Your task to perform on an android device: open app "Speedtest by Ookla" (install if not already installed) Image 0: 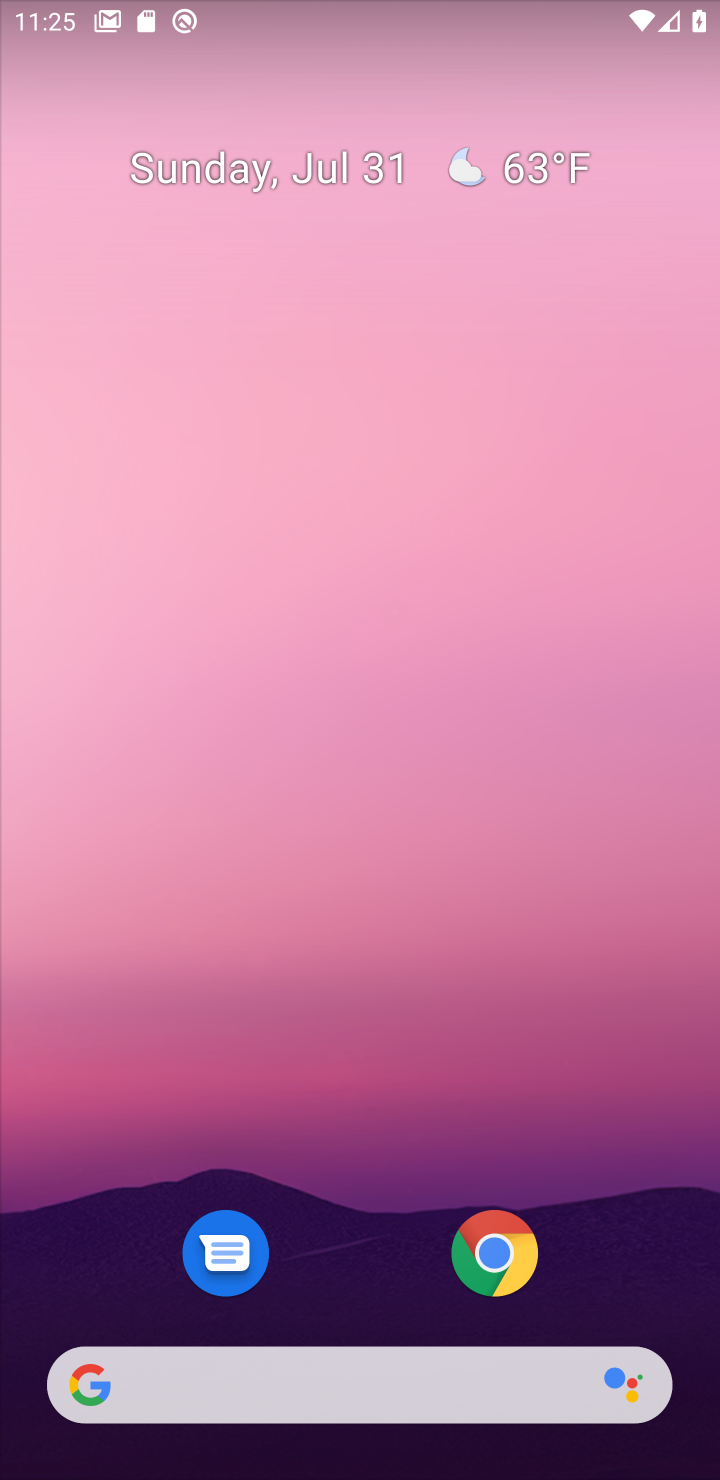
Step 0: drag from (369, 1041) to (454, 137)
Your task to perform on an android device: open app "Speedtest by Ookla" (install if not already installed) Image 1: 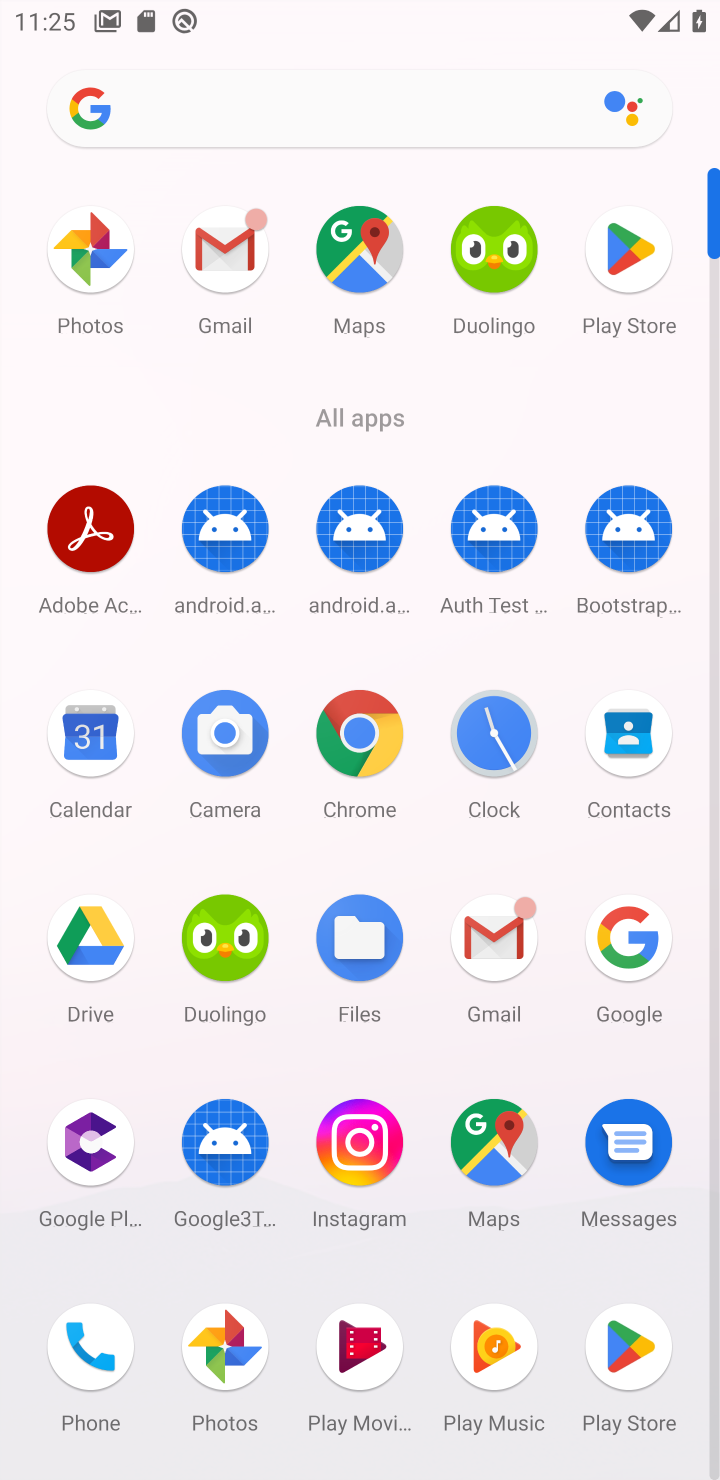
Step 1: click (632, 275)
Your task to perform on an android device: open app "Speedtest by Ookla" (install if not already installed) Image 2: 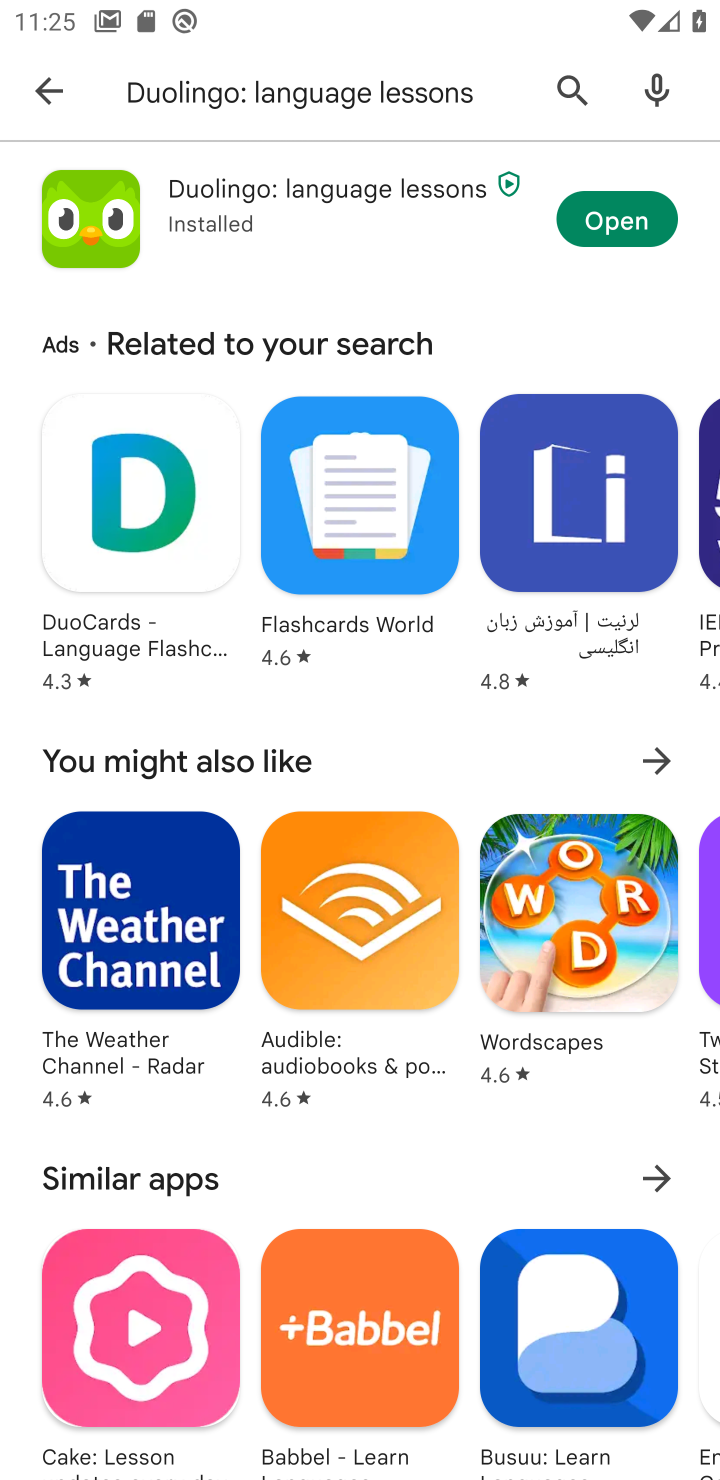
Step 2: click (421, 88)
Your task to perform on an android device: open app "Speedtest by Ookla" (install if not already installed) Image 3: 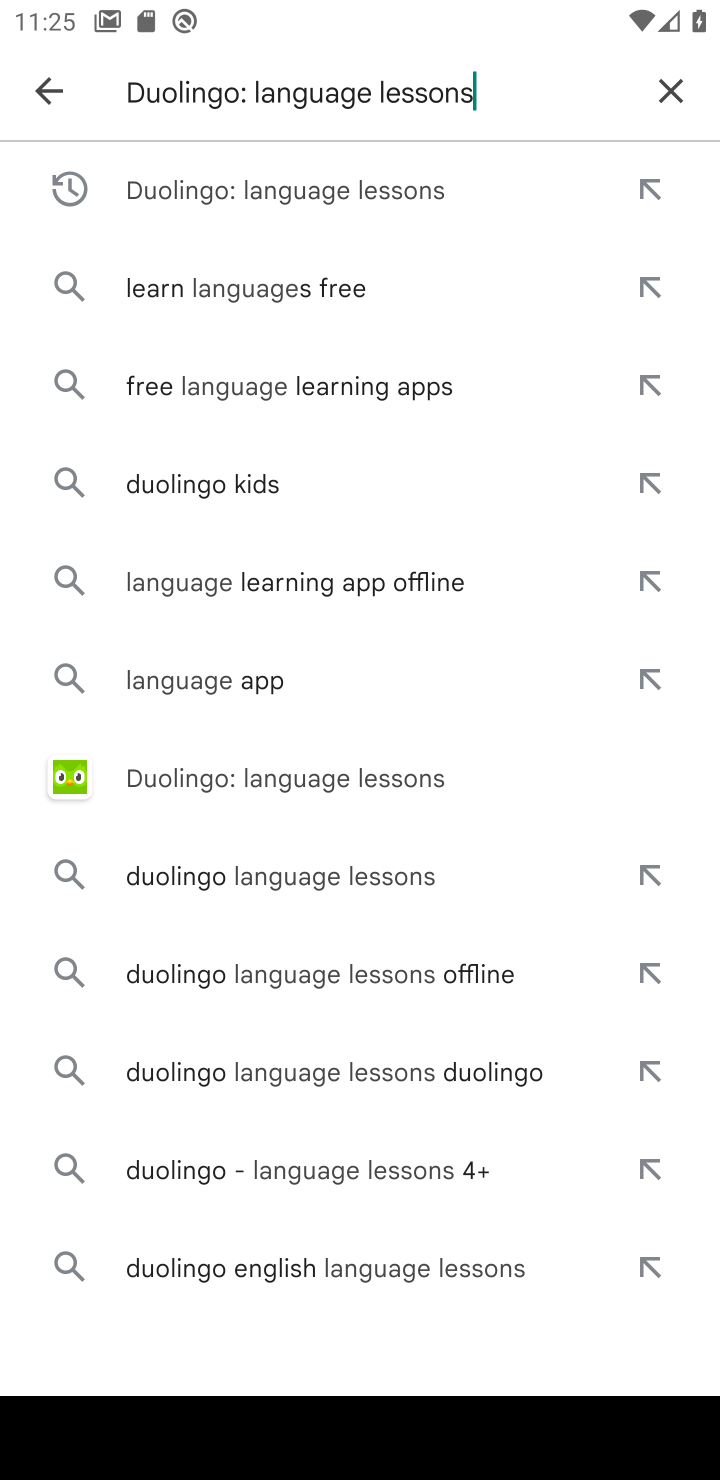
Step 3: click (676, 85)
Your task to perform on an android device: open app "Speedtest by Ookla" (install if not already installed) Image 4: 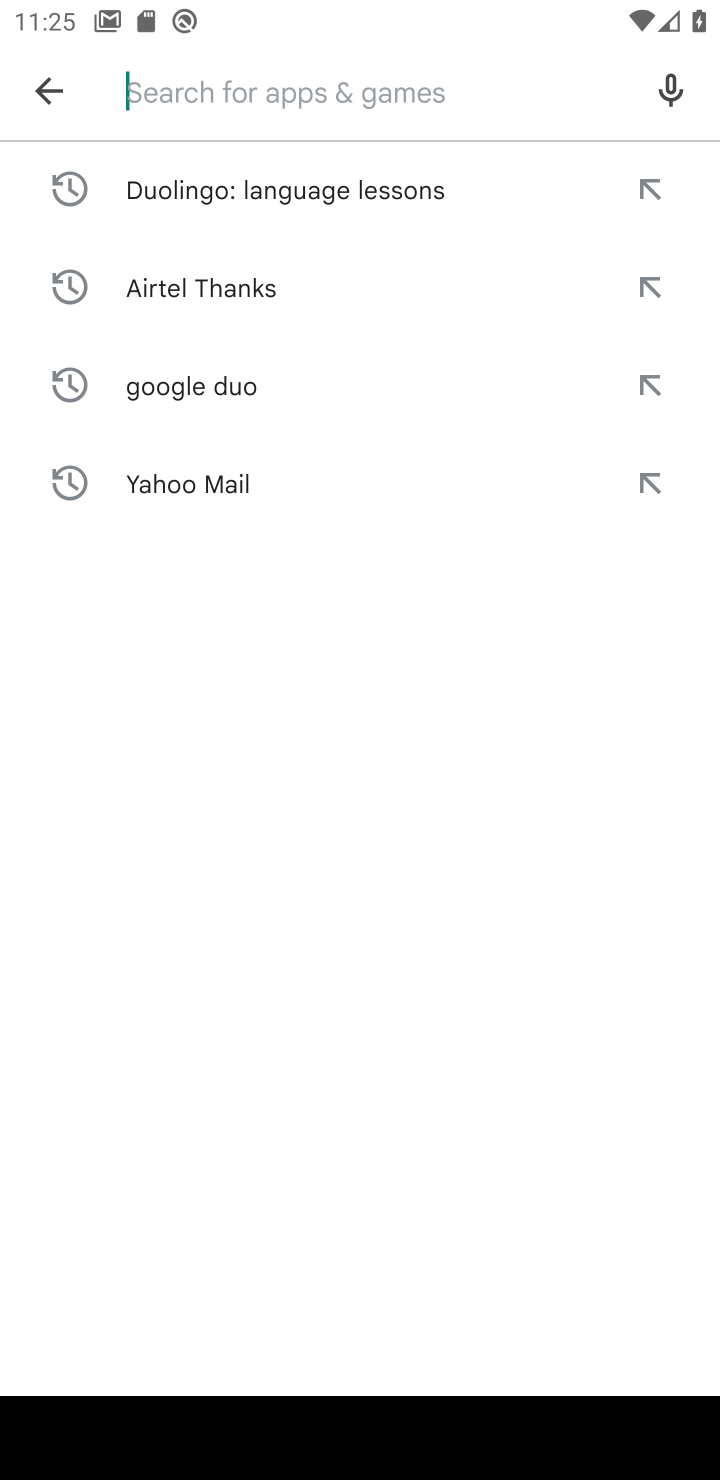
Step 4: type "Speedtest by Ookla"
Your task to perform on an android device: open app "Speedtest by Ookla" (install if not already installed) Image 5: 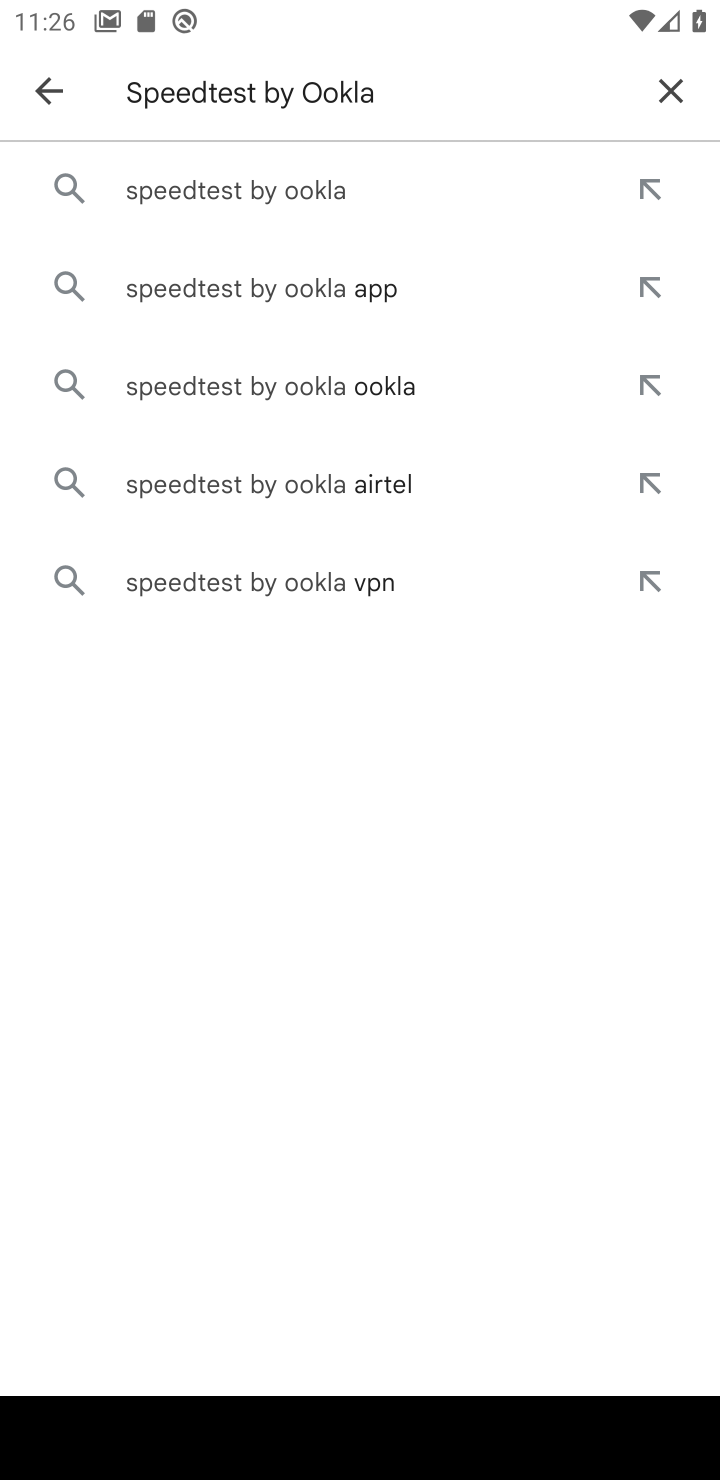
Step 5: press enter
Your task to perform on an android device: open app "Speedtest by Ookla" (install if not already installed) Image 6: 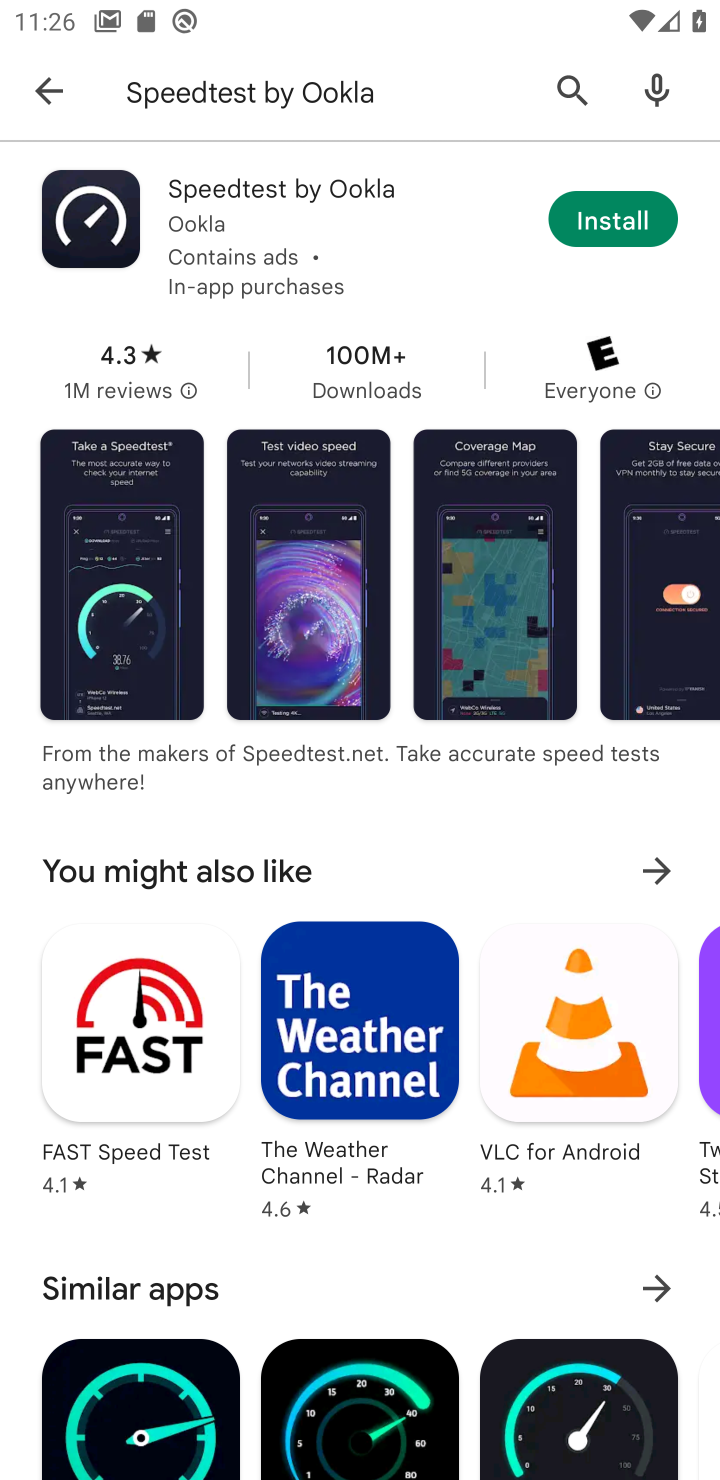
Step 6: click (625, 212)
Your task to perform on an android device: open app "Speedtest by Ookla" (install if not already installed) Image 7: 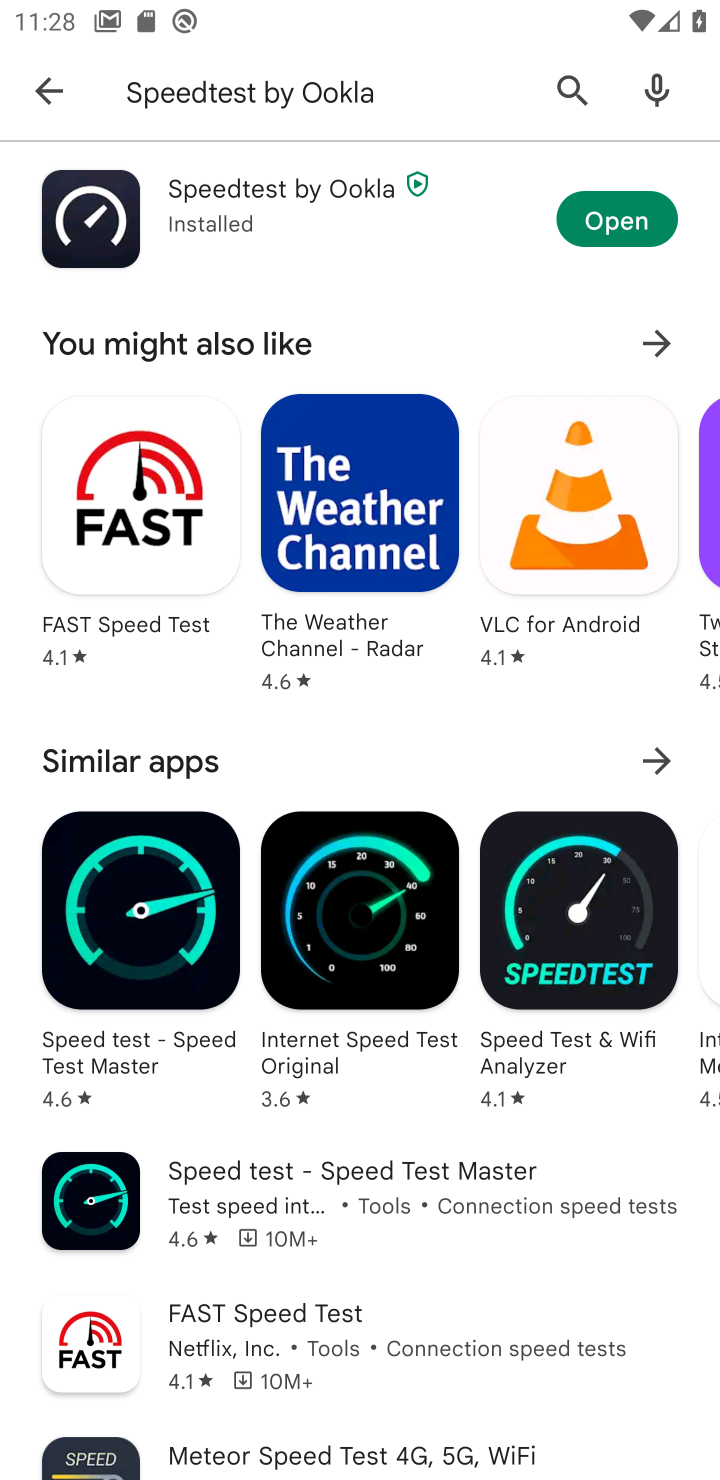
Step 7: click (625, 209)
Your task to perform on an android device: open app "Speedtest by Ookla" (install if not already installed) Image 8: 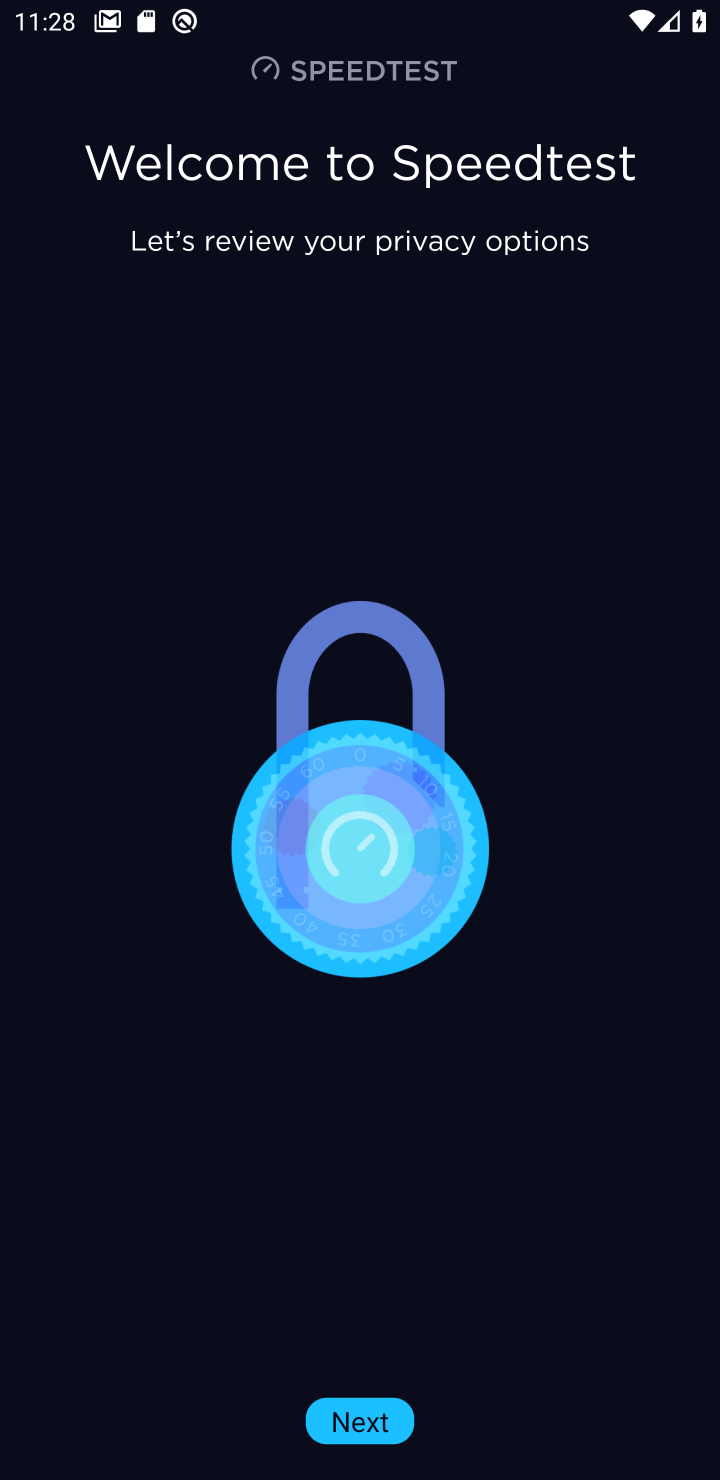
Step 8: task complete